Your task to perform on an android device: delete the emails in spam in the gmail app Image 0: 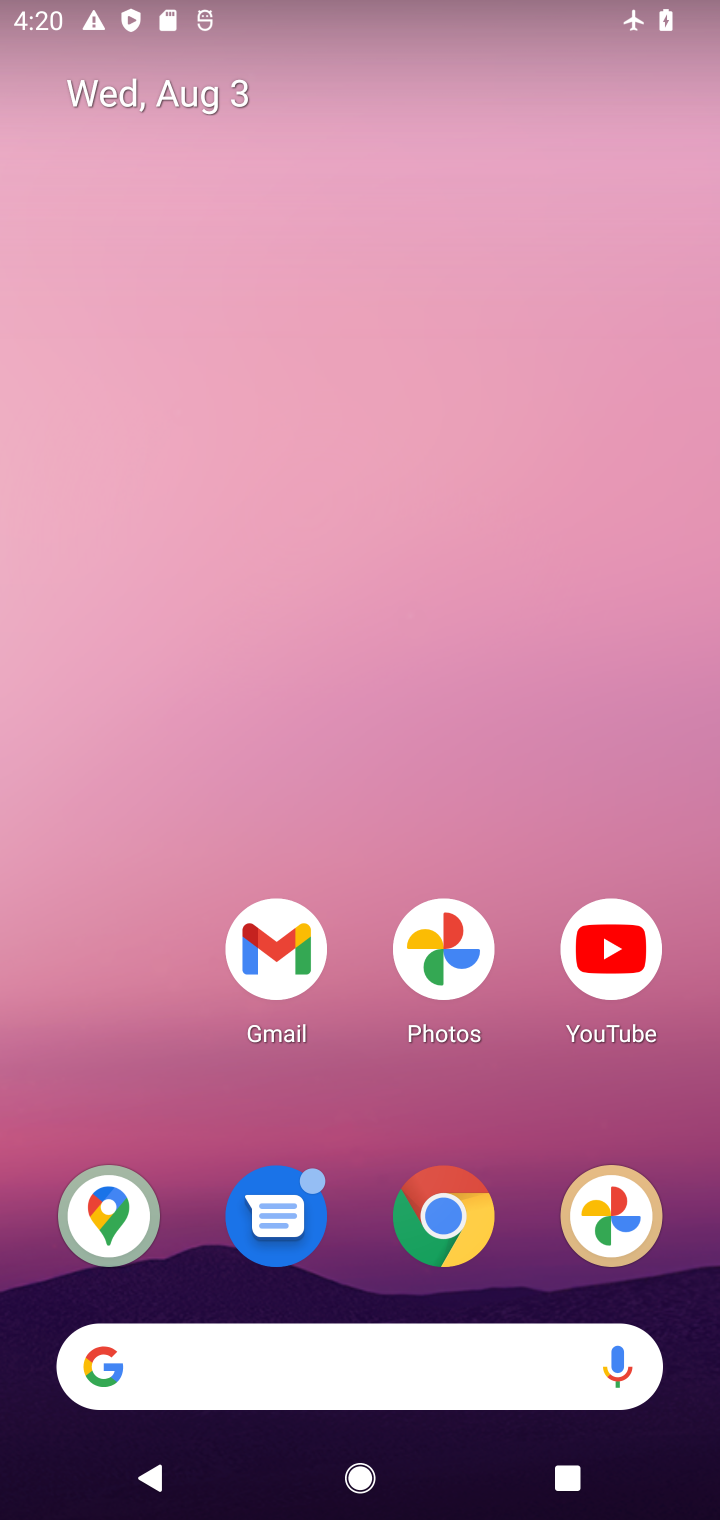
Step 0: drag from (478, 1089) to (479, 489)
Your task to perform on an android device: delete the emails in spam in the gmail app Image 1: 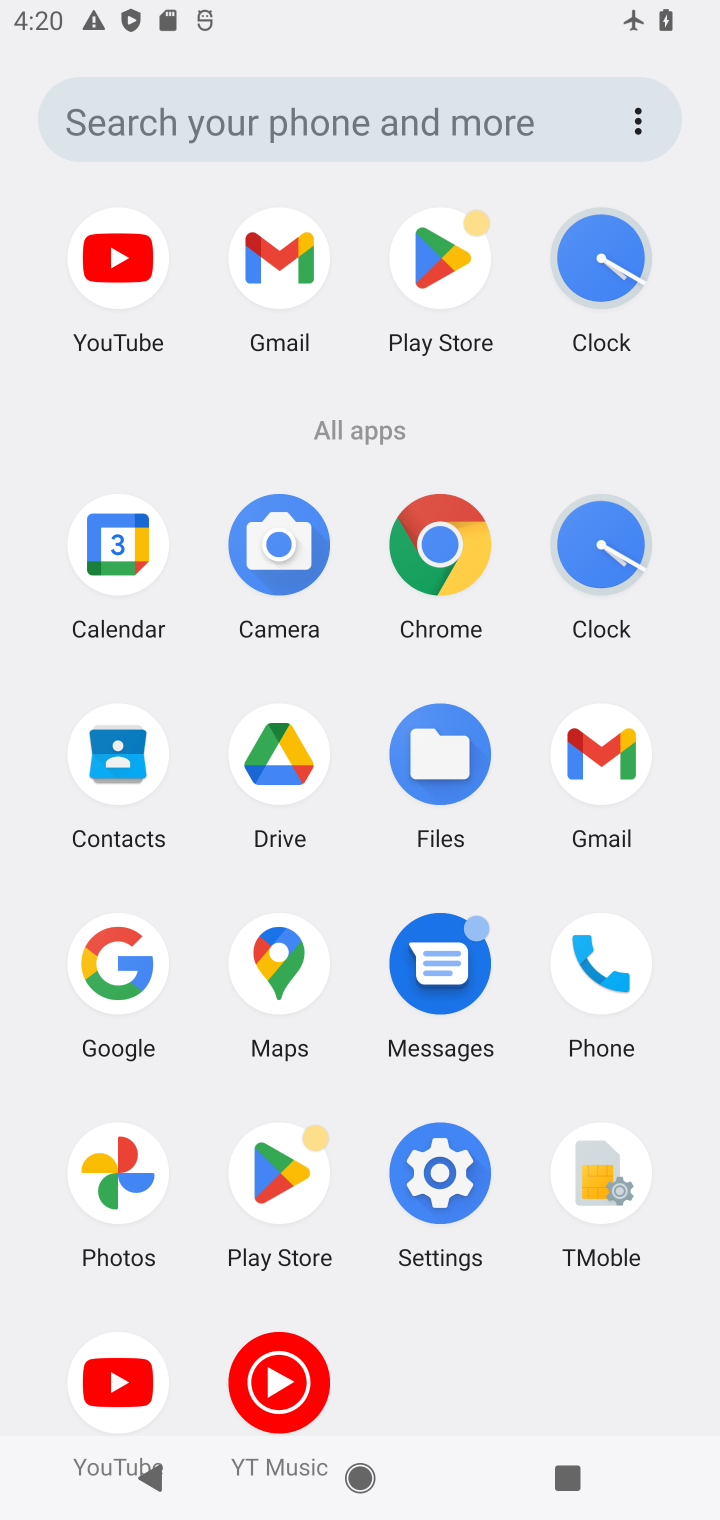
Step 1: click (593, 756)
Your task to perform on an android device: delete the emails in spam in the gmail app Image 2: 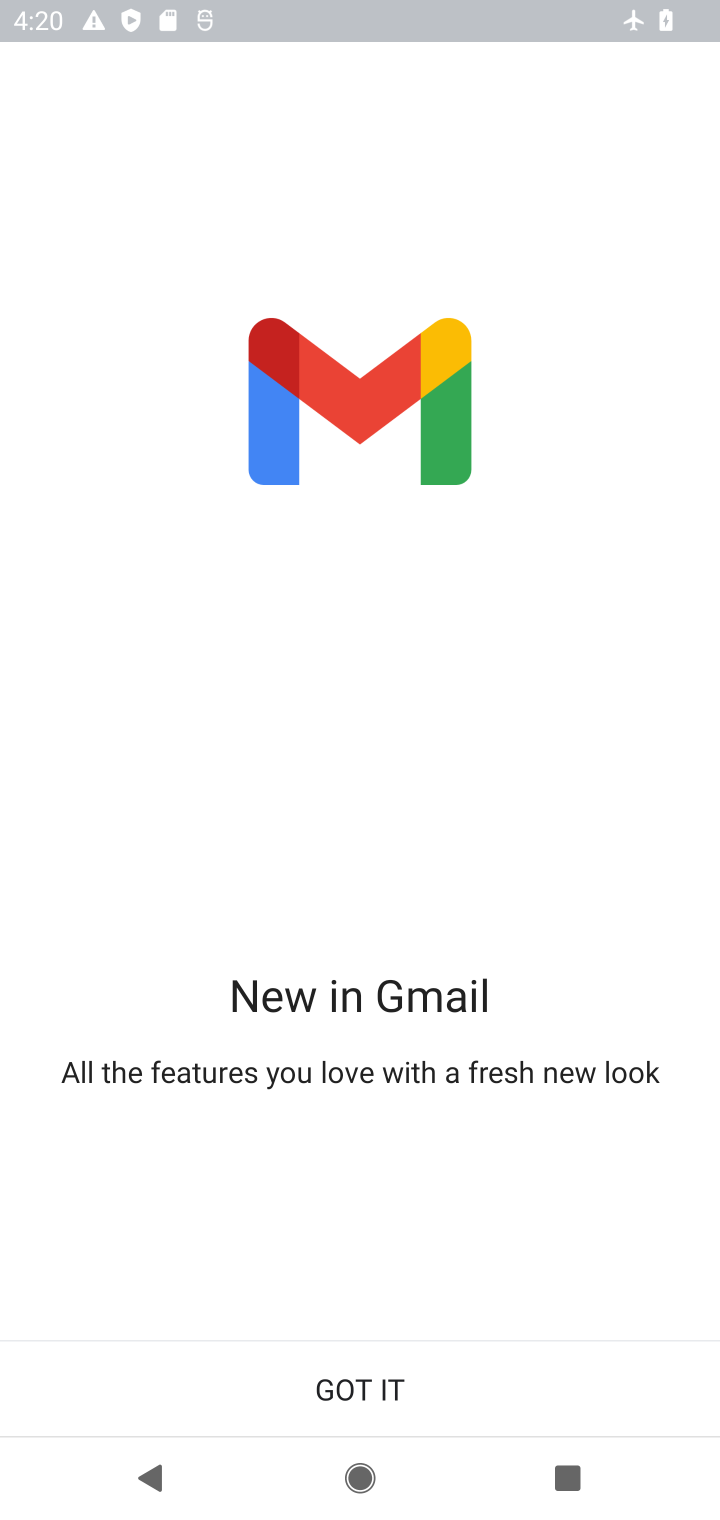
Step 2: click (273, 1381)
Your task to perform on an android device: delete the emails in spam in the gmail app Image 3: 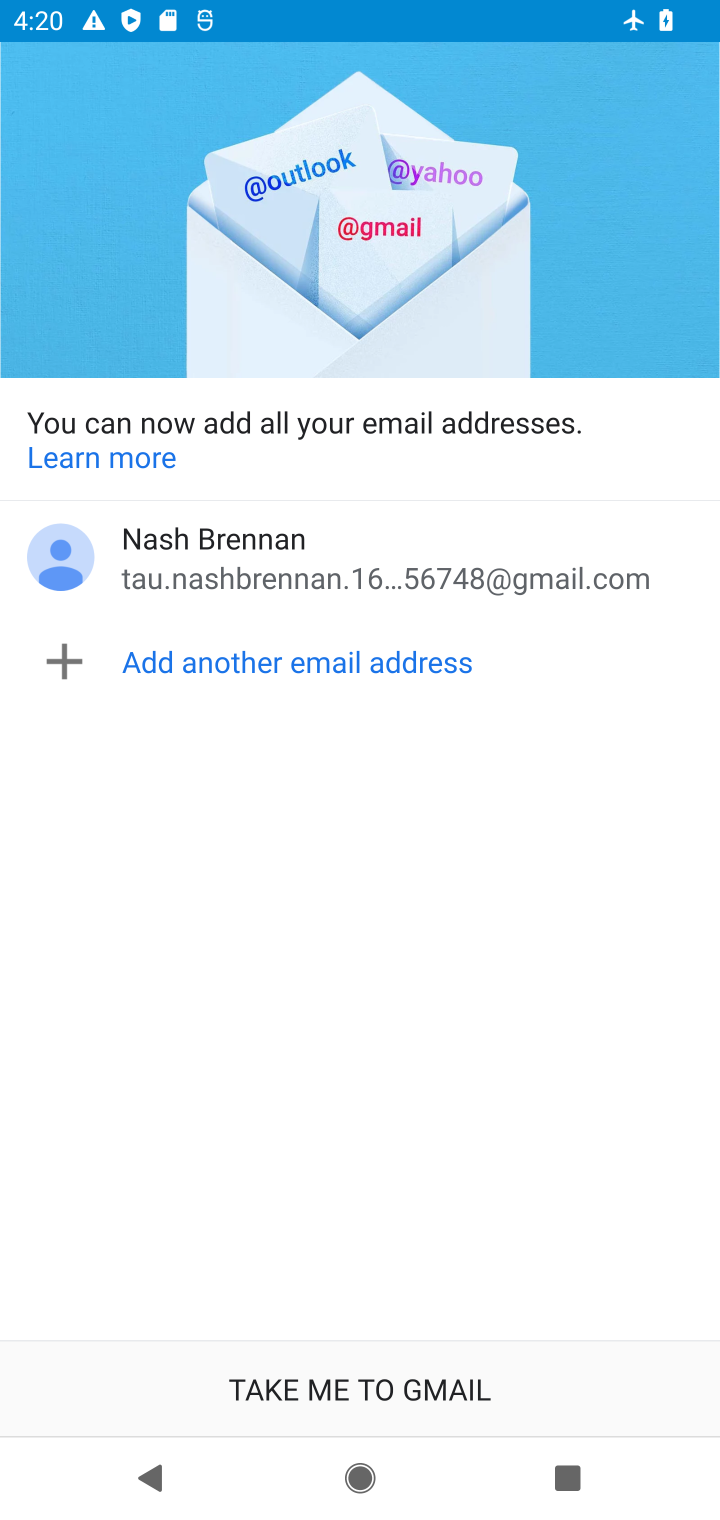
Step 3: click (273, 1381)
Your task to perform on an android device: delete the emails in spam in the gmail app Image 4: 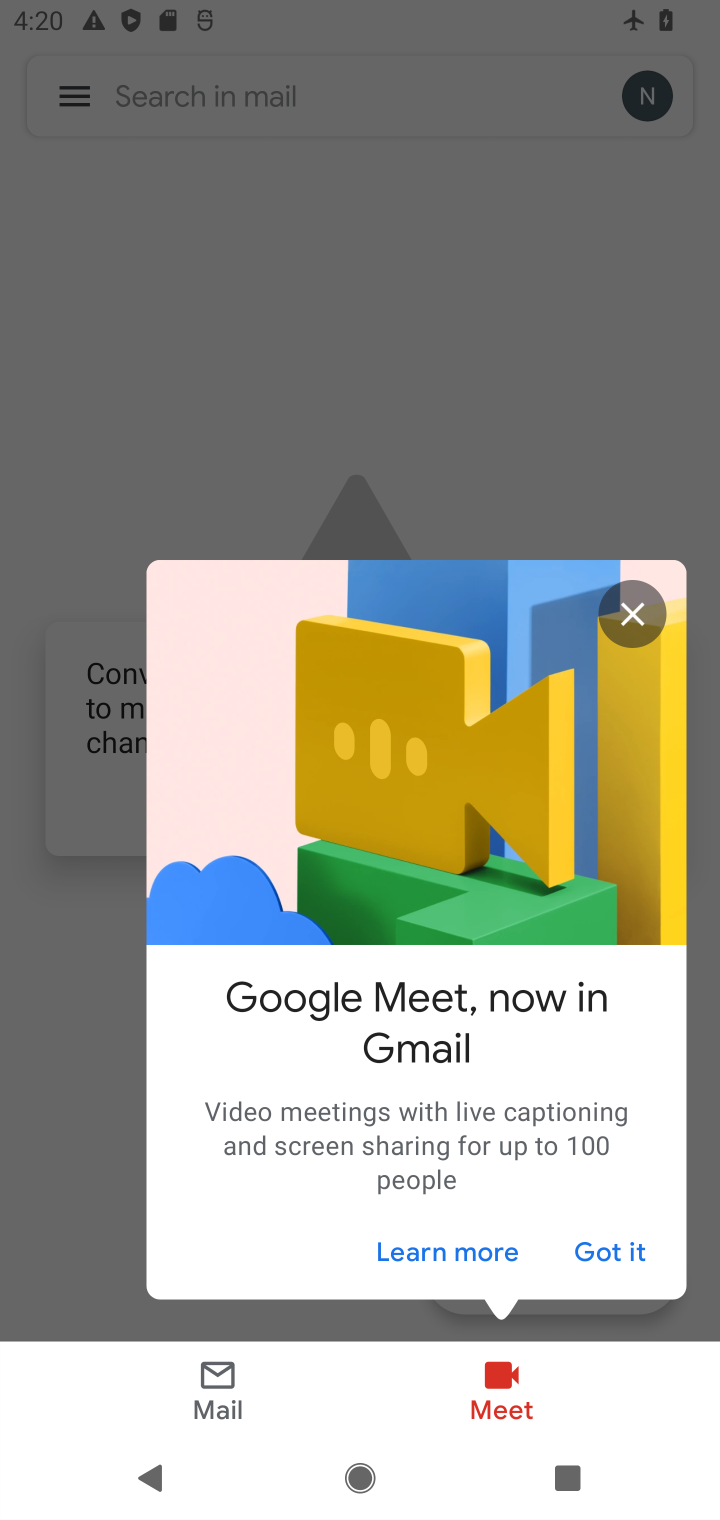
Step 4: click (624, 606)
Your task to perform on an android device: delete the emails in spam in the gmail app Image 5: 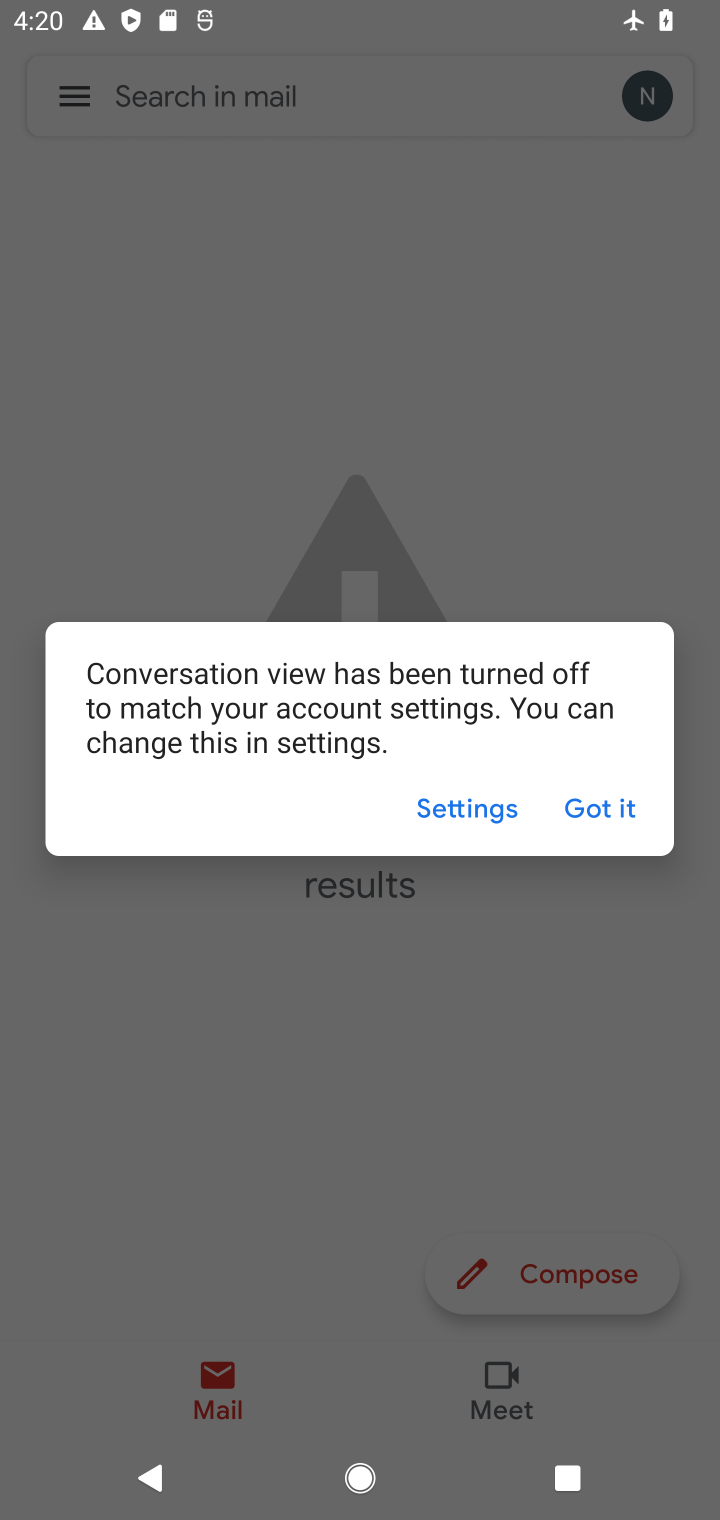
Step 5: click (593, 805)
Your task to perform on an android device: delete the emails in spam in the gmail app Image 6: 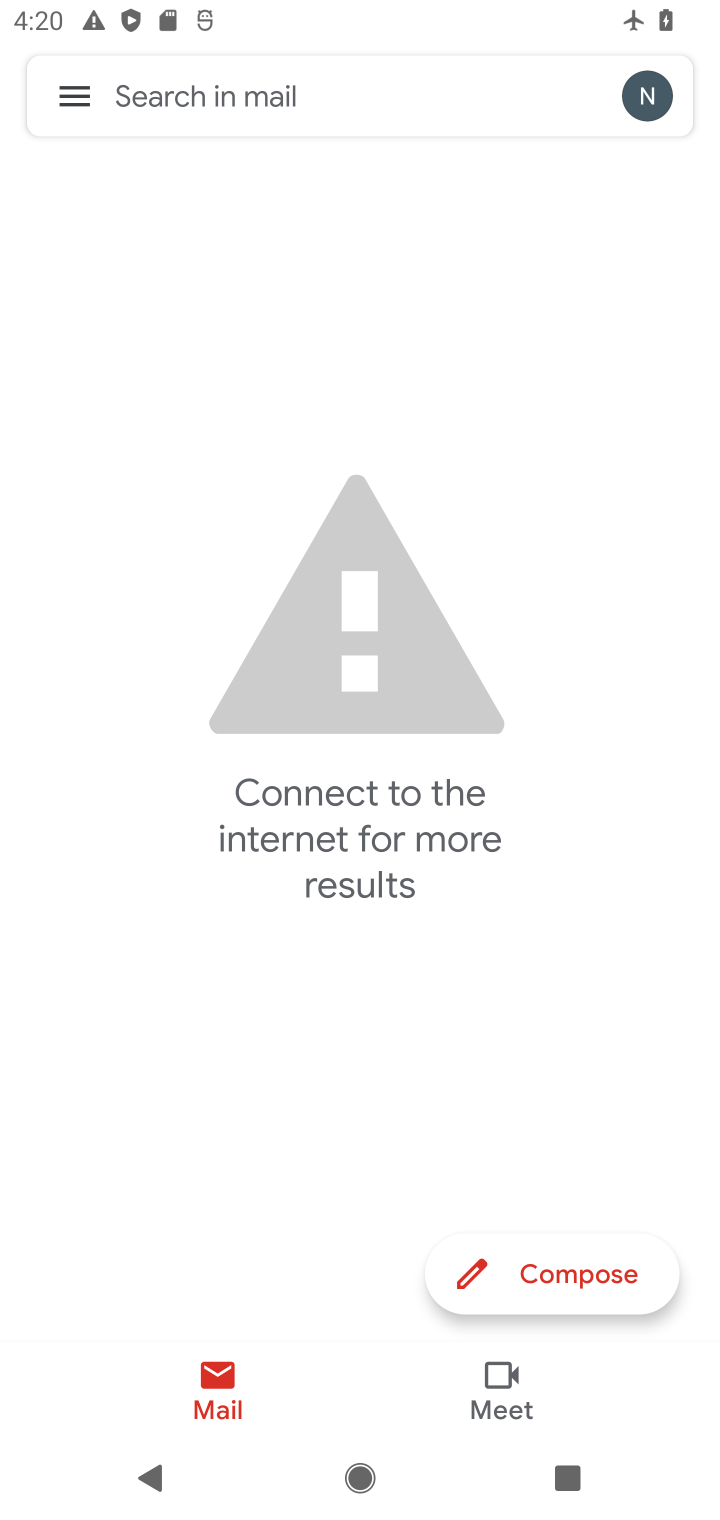
Step 6: task complete